Your task to perform on an android device: see tabs open on other devices in the chrome app Image 0: 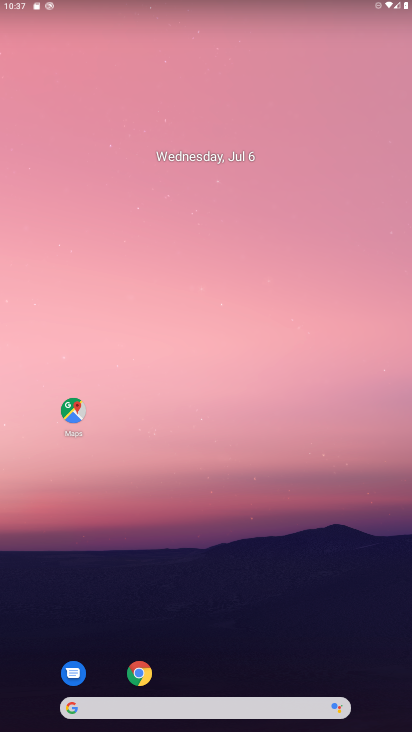
Step 0: click (146, 677)
Your task to perform on an android device: see tabs open on other devices in the chrome app Image 1: 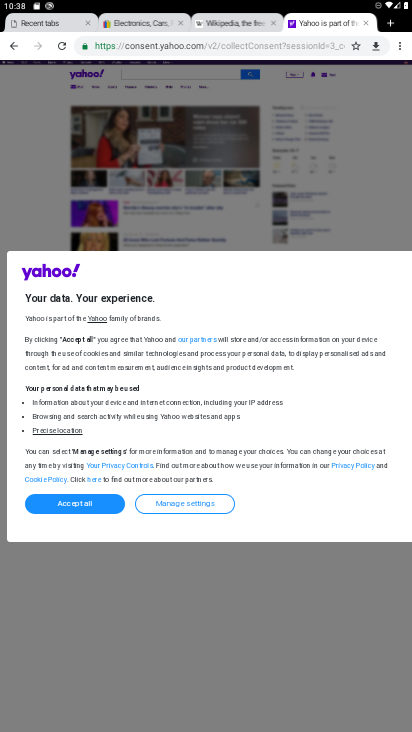
Step 1: click (403, 50)
Your task to perform on an android device: see tabs open on other devices in the chrome app Image 2: 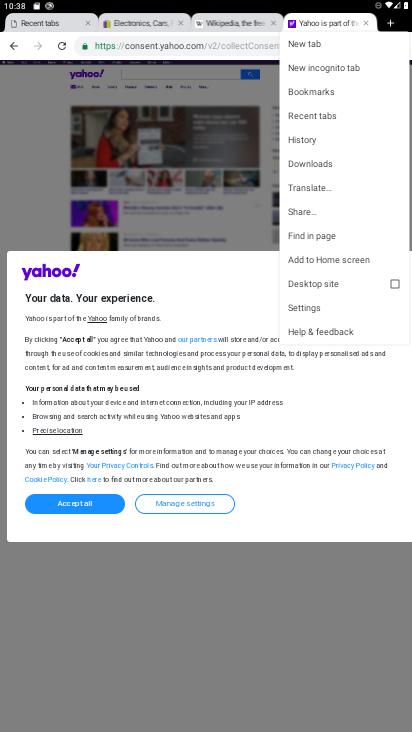
Step 2: click (325, 113)
Your task to perform on an android device: see tabs open on other devices in the chrome app Image 3: 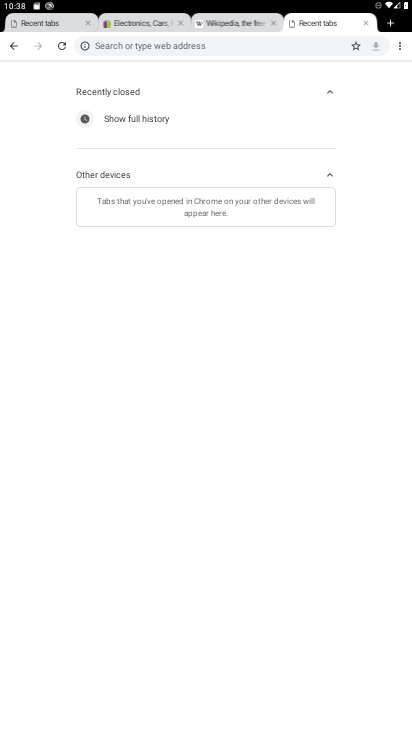
Step 3: task complete